Your task to perform on an android device: install app "LinkedIn" Image 0: 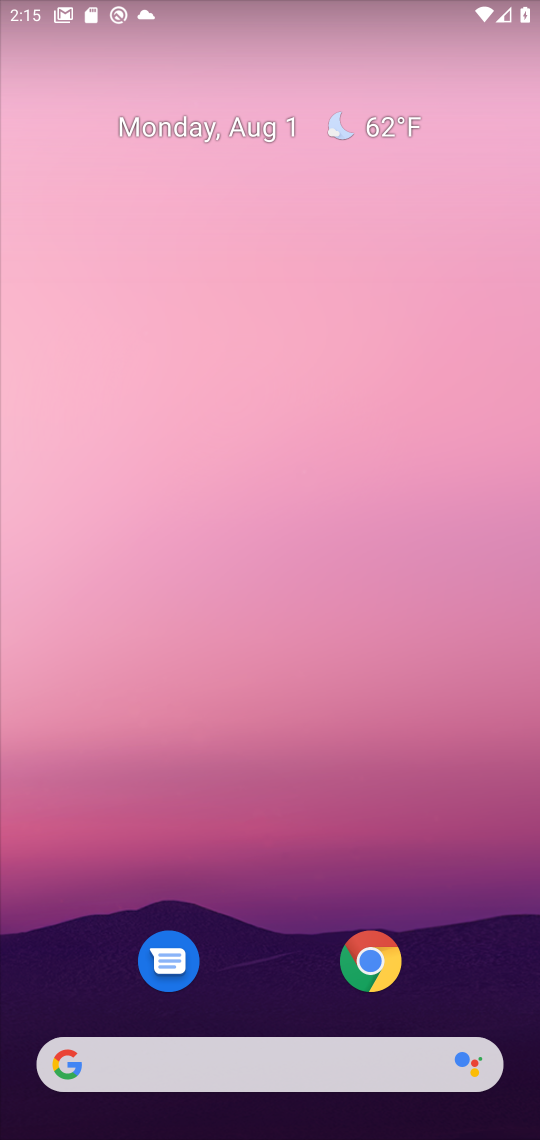
Step 0: drag from (353, 725) to (492, 461)
Your task to perform on an android device: install app "LinkedIn" Image 1: 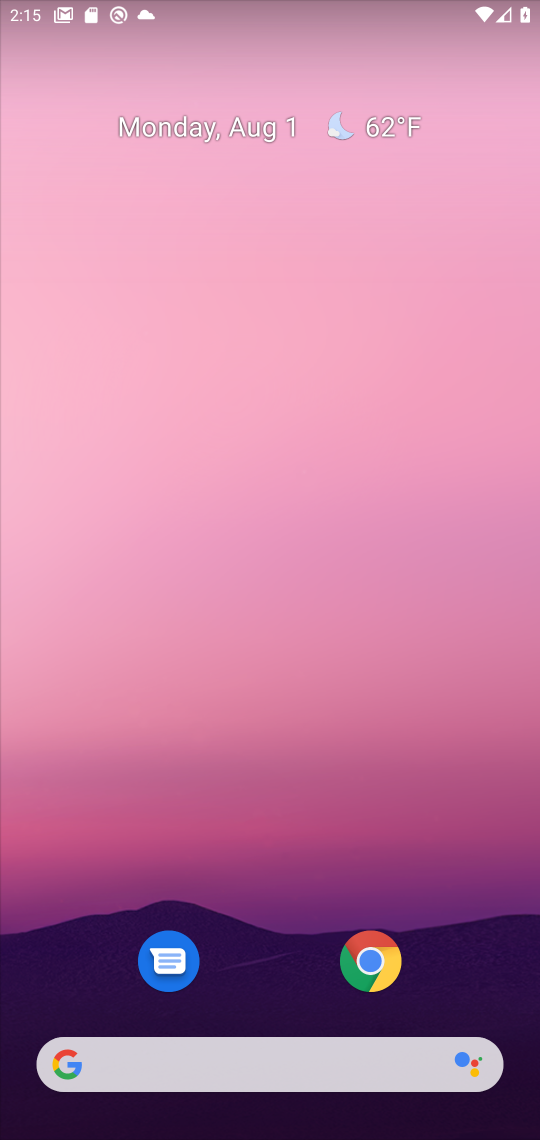
Step 1: drag from (420, 818) to (450, 3)
Your task to perform on an android device: install app "LinkedIn" Image 2: 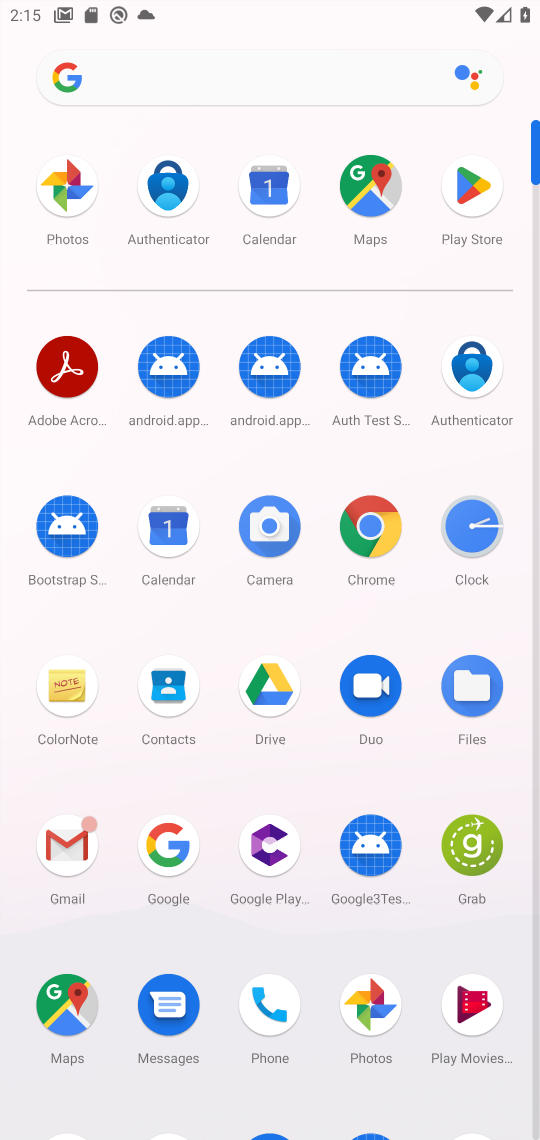
Step 2: click (460, 177)
Your task to perform on an android device: install app "LinkedIn" Image 3: 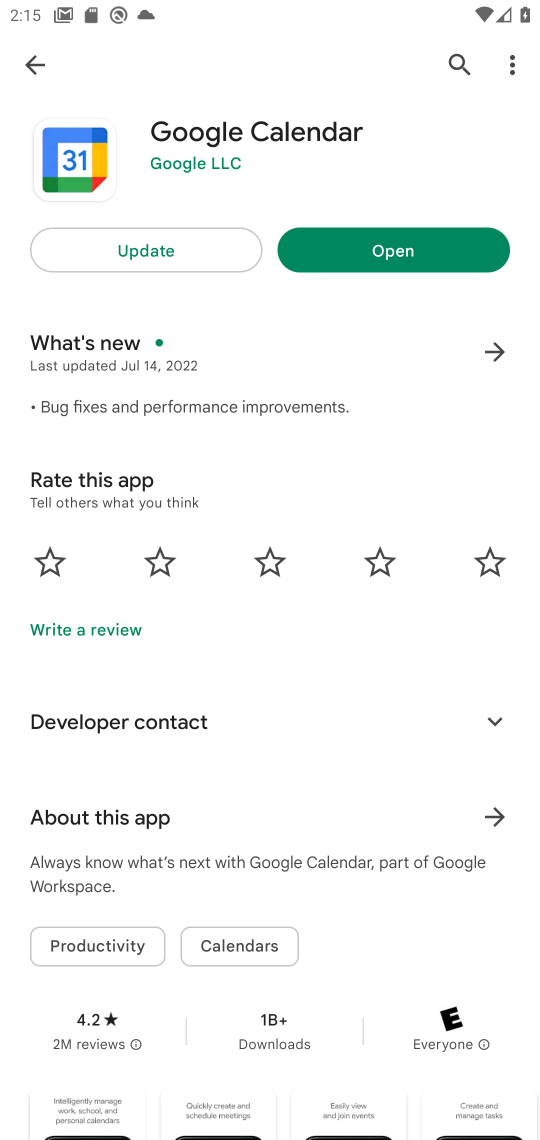
Step 3: click (451, 61)
Your task to perform on an android device: install app "LinkedIn" Image 4: 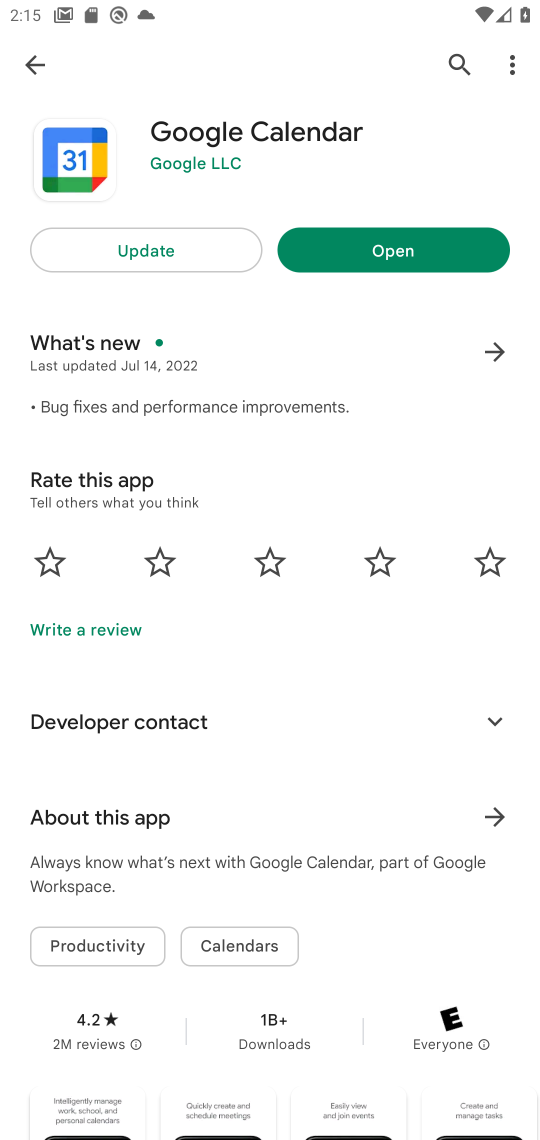
Step 4: click (460, 67)
Your task to perform on an android device: install app "LinkedIn" Image 5: 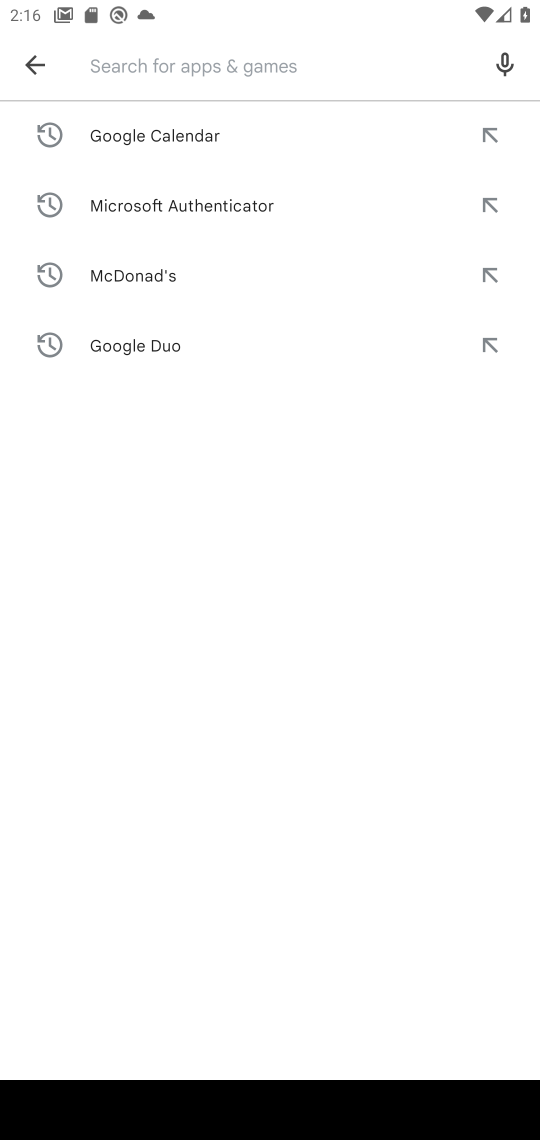
Step 5: type "Linkedln"
Your task to perform on an android device: install app "LinkedIn" Image 6: 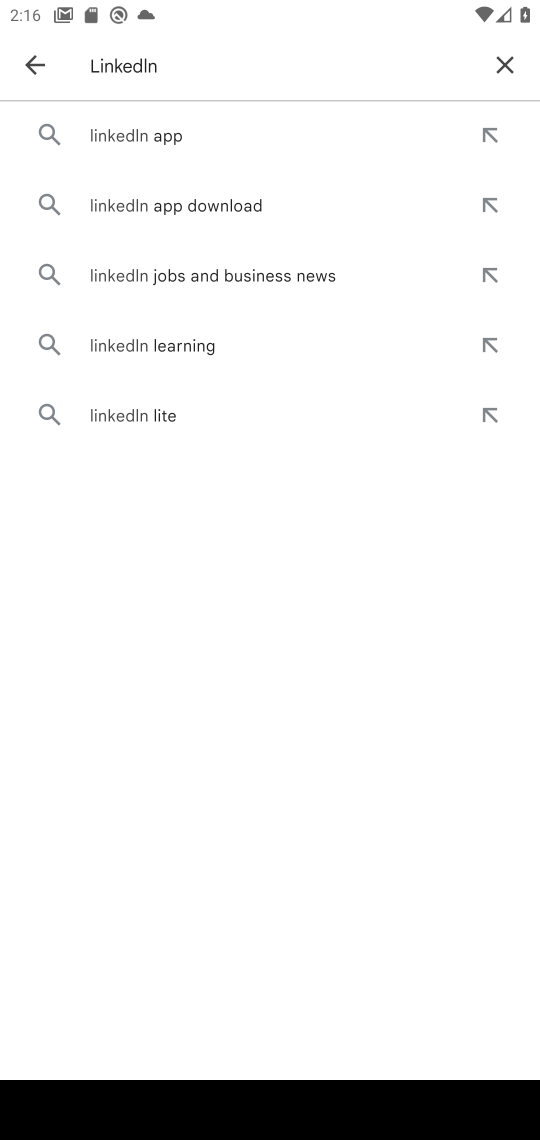
Step 6: press enter
Your task to perform on an android device: install app "LinkedIn" Image 7: 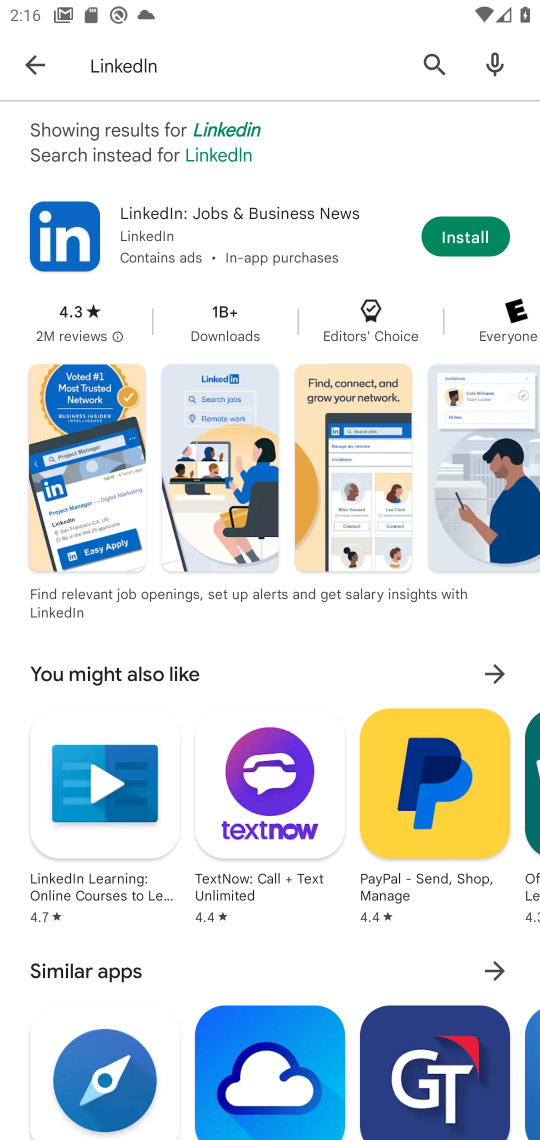
Step 7: click (433, 256)
Your task to perform on an android device: install app "LinkedIn" Image 8: 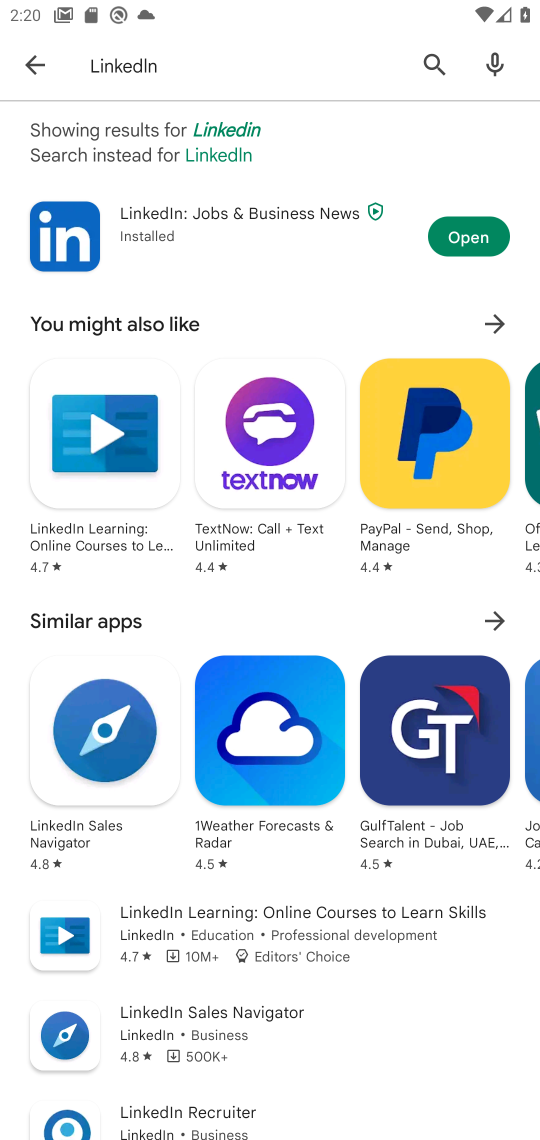
Step 8: task complete